Your task to perform on an android device: find snoozed emails in the gmail app Image 0: 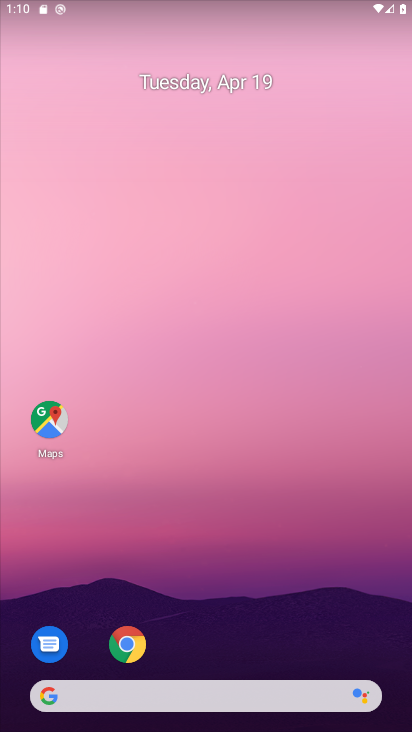
Step 0: drag from (233, 604) to (310, 86)
Your task to perform on an android device: find snoozed emails in the gmail app Image 1: 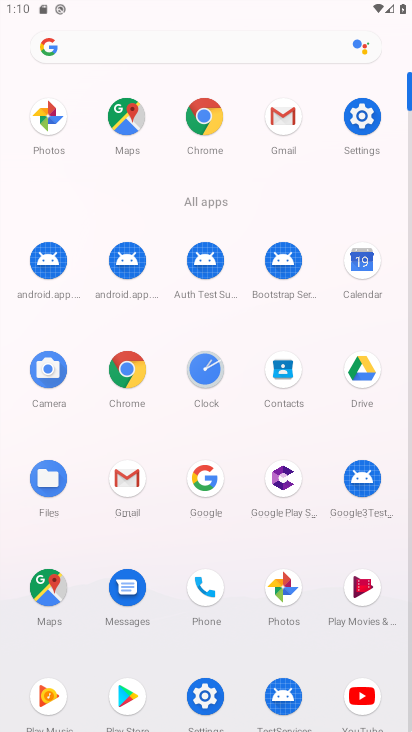
Step 1: click (128, 495)
Your task to perform on an android device: find snoozed emails in the gmail app Image 2: 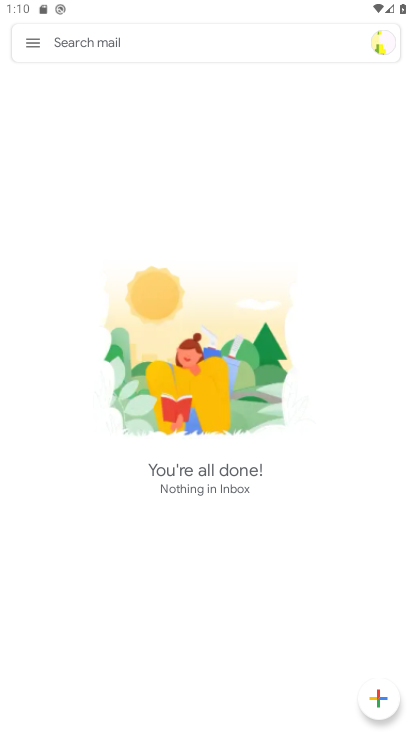
Step 2: click (35, 41)
Your task to perform on an android device: find snoozed emails in the gmail app Image 3: 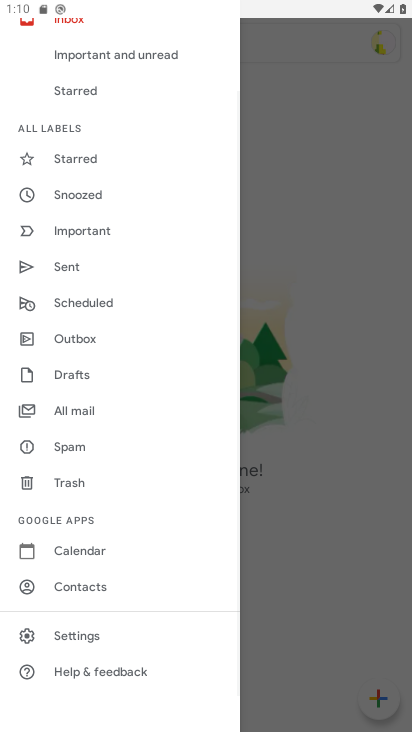
Step 3: click (82, 196)
Your task to perform on an android device: find snoozed emails in the gmail app Image 4: 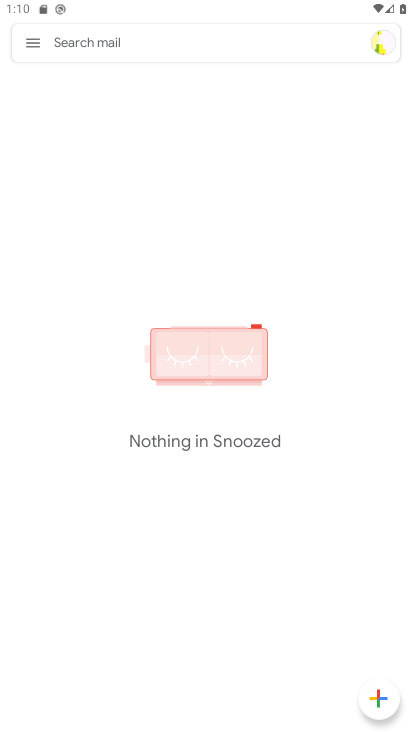
Step 4: task complete